Your task to perform on an android device: read, delete, or share a saved page in the chrome app Image 0: 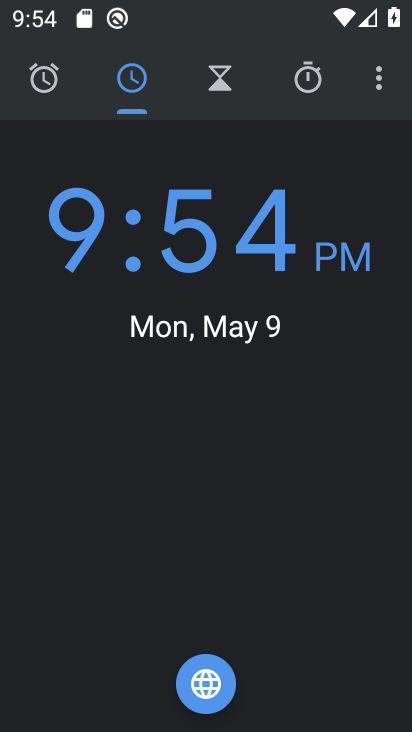
Step 0: press home button
Your task to perform on an android device: read, delete, or share a saved page in the chrome app Image 1: 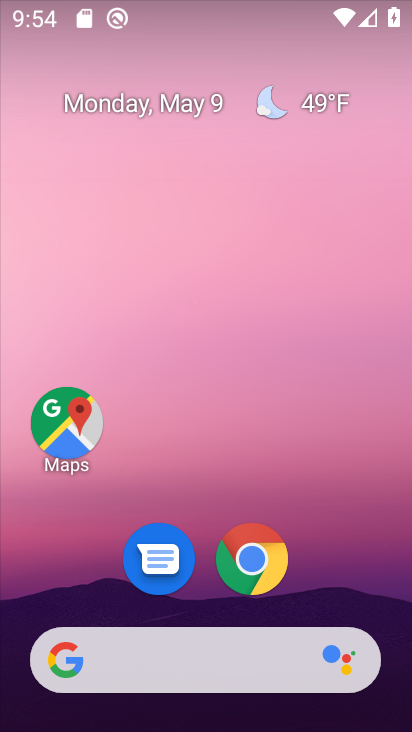
Step 1: click (258, 572)
Your task to perform on an android device: read, delete, or share a saved page in the chrome app Image 2: 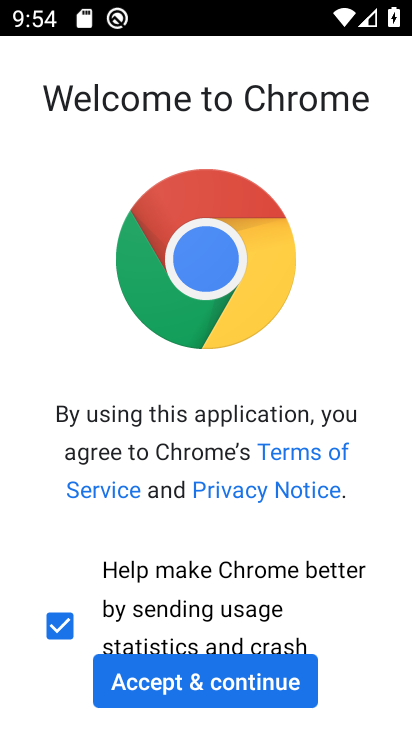
Step 2: click (182, 677)
Your task to perform on an android device: read, delete, or share a saved page in the chrome app Image 3: 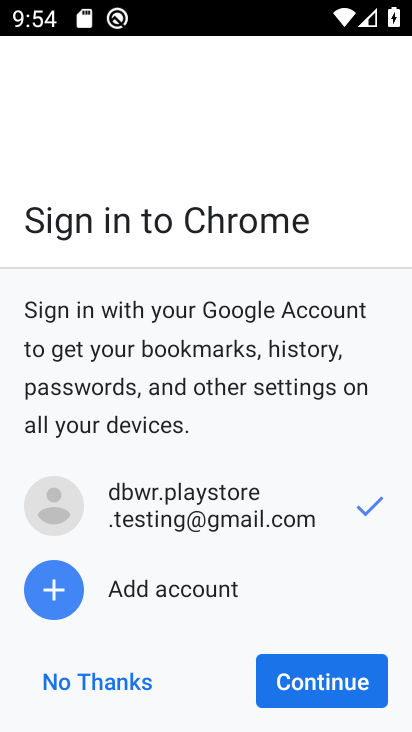
Step 3: click (317, 681)
Your task to perform on an android device: read, delete, or share a saved page in the chrome app Image 4: 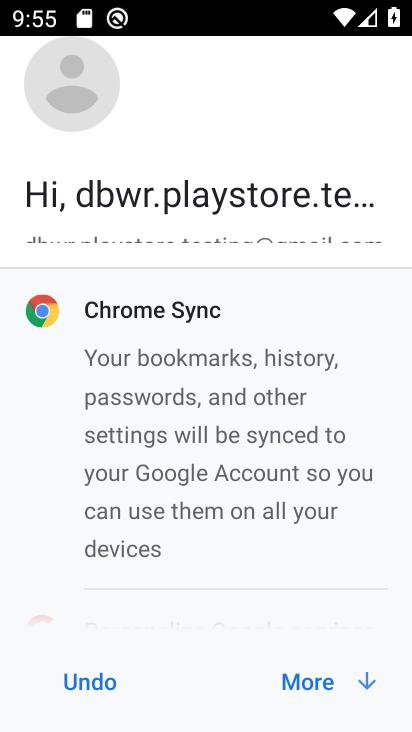
Step 4: click (311, 676)
Your task to perform on an android device: read, delete, or share a saved page in the chrome app Image 5: 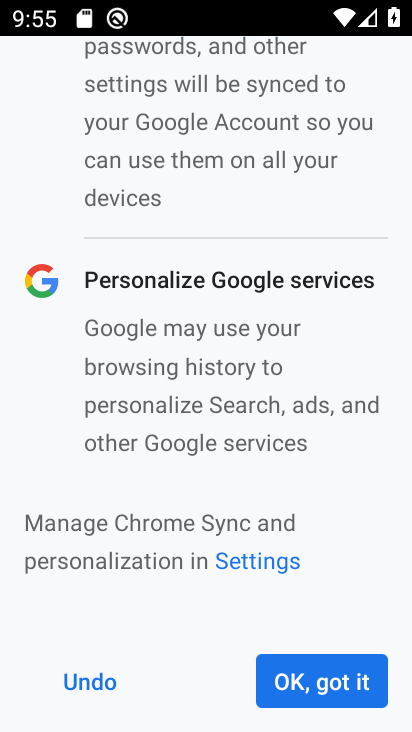
Step 5: click (311, 676)
Your task to perform on an android device: read, delete, or share a saved page in the chrome app Image 6: 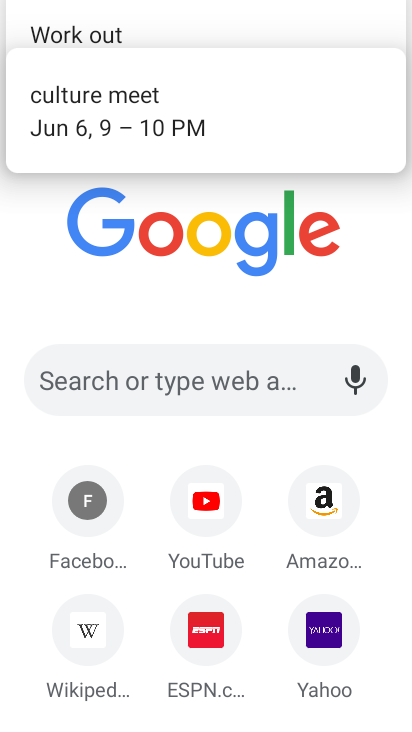
Step 6: drag from (311, 149) to (312, 6)
Your task to perform on an android device: read, delete, or share a saved page in the chrome app Image 7: 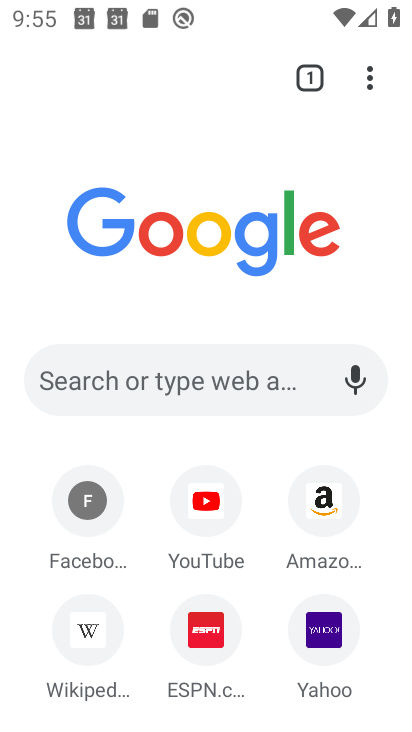
Step 7: click (366, 85)
Your task to perform on an android device: read, delete, or share a saved page in the chrome app Image 8: 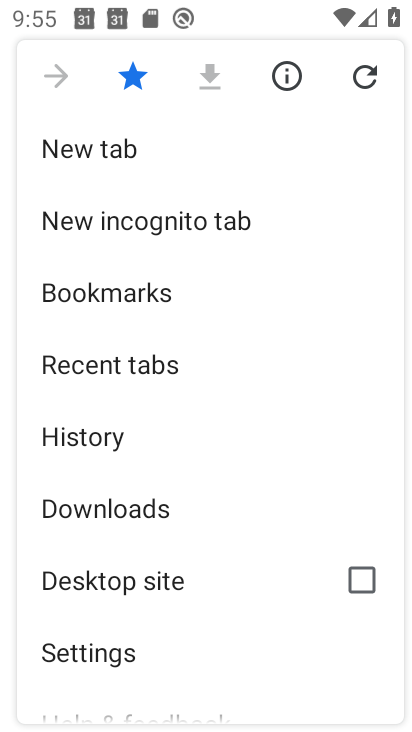
Step 8: click (115, 508)
Your task to perform on an android device: read, delete, or share a saved page in the chrome app Image 9: 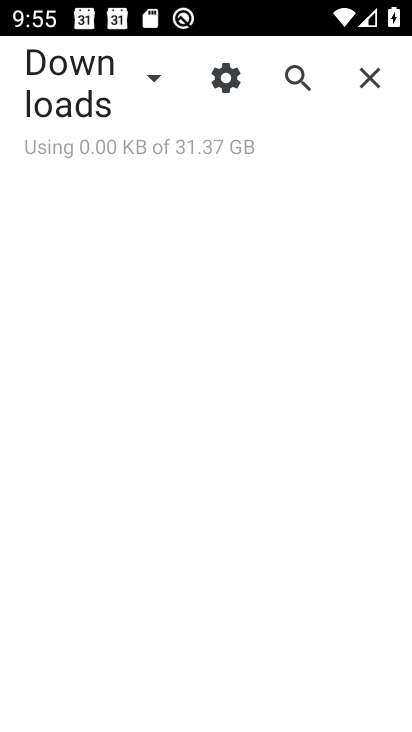
Step 9: click (153, 76)
Your task to perform on an android device: read, delete, or share a saved page in the chrome app Image 10: 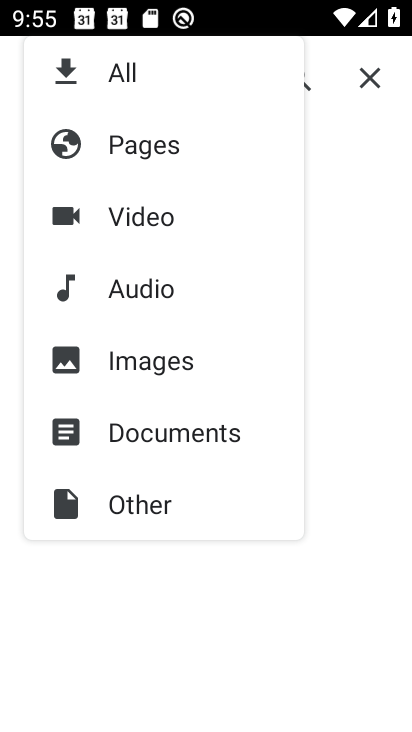
Step 10: click (146, 136)
Your task to perform on an android device: read, delete, or share a saved page in the chrome app Image 11: 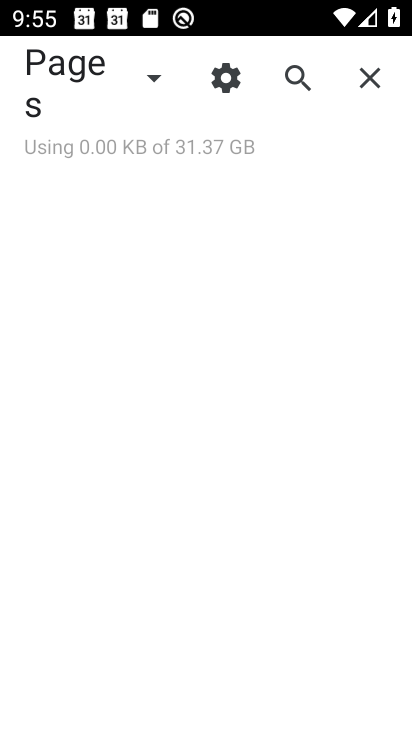
Step 11: task complete